Your task to perform on an android device: Go to Maps Image 0: 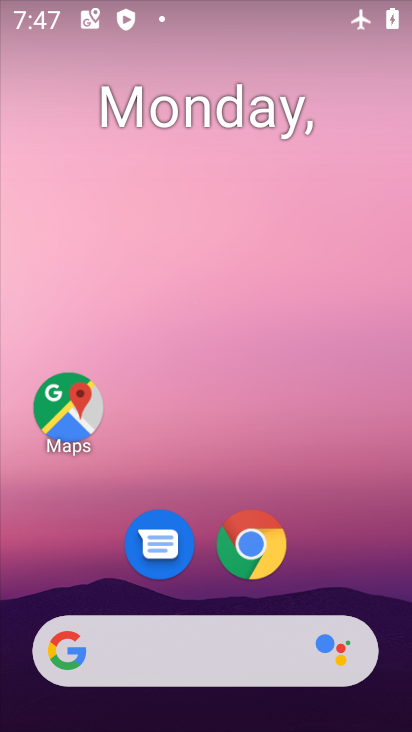
Step 0: click (64, 409)
Your task to perform on an android device: Go to Maps Image 1: 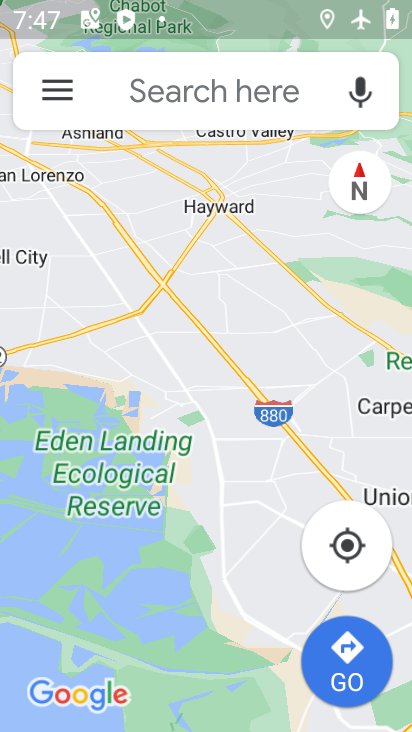
Step 1: click (102, 101)
Your task to perform on an android device: Go to Maps Image 2: 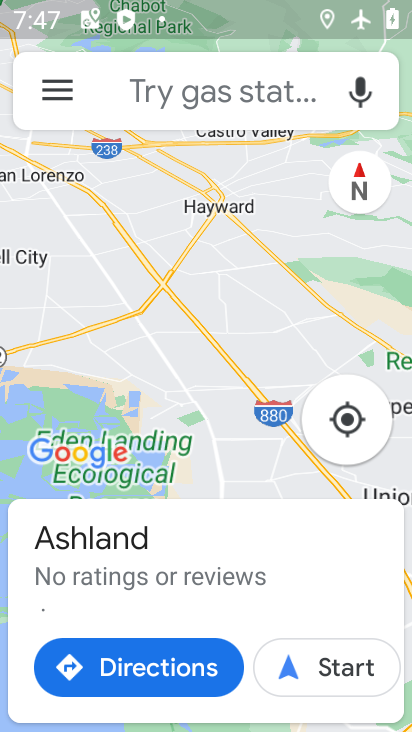
Step 2: task complete